Your task to perform on an android device: Open Reddit.com Image 0: 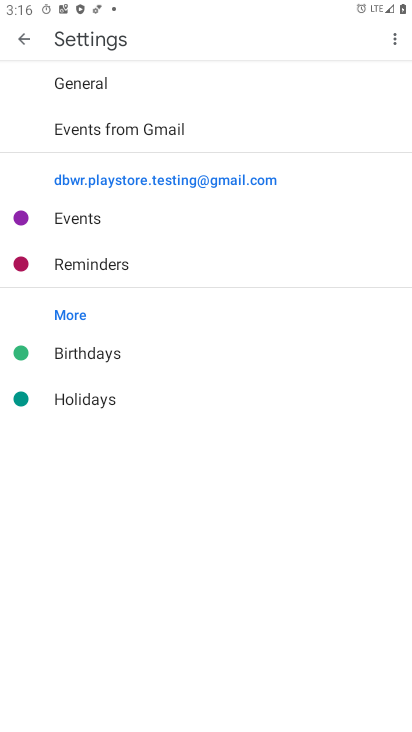
Step 0: press home button
Your task to perform on an android device: Open Reddit.com Image 1: 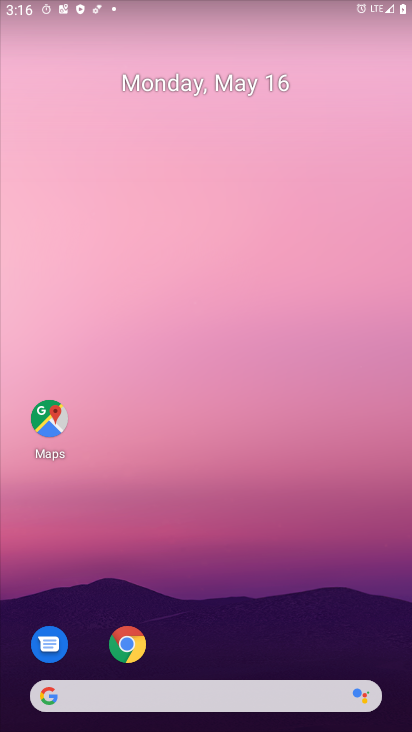
Step 1: drag from (272, 654) to (276, 167)
Your task to perform on an android device: Open Reddit.com Image 2: 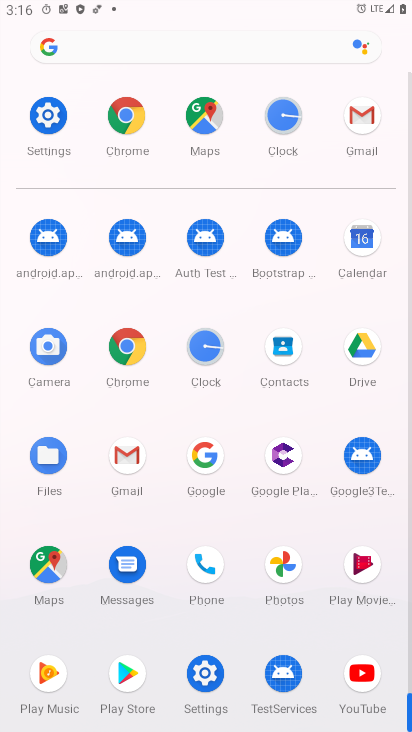
Step 2: click (136, 134)
Your task to perform on an android device: Open Reddit.com Image 3: 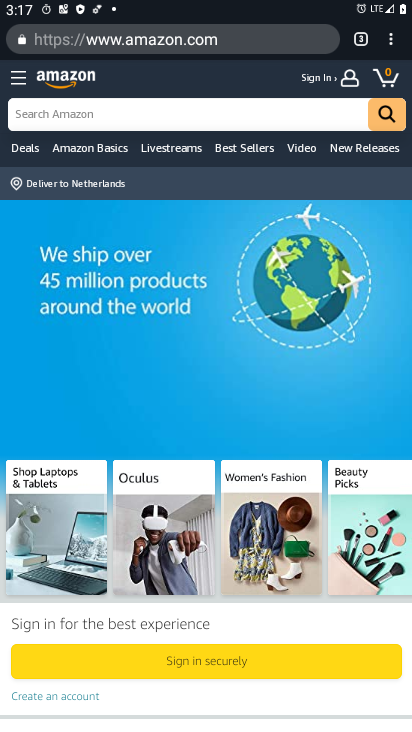
Step 3: click (205, 34)
Your task to perform on an android device: Open Reddit.com Image 4: 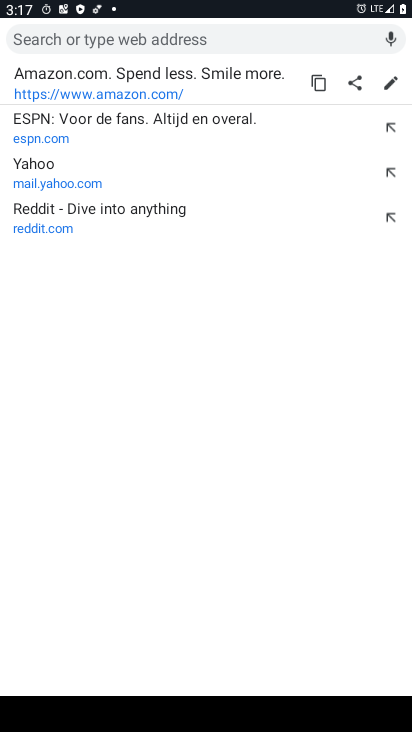
Step 4: click (216, 228)
Your task to perform on an android device: Open Reddit.com Image 5: 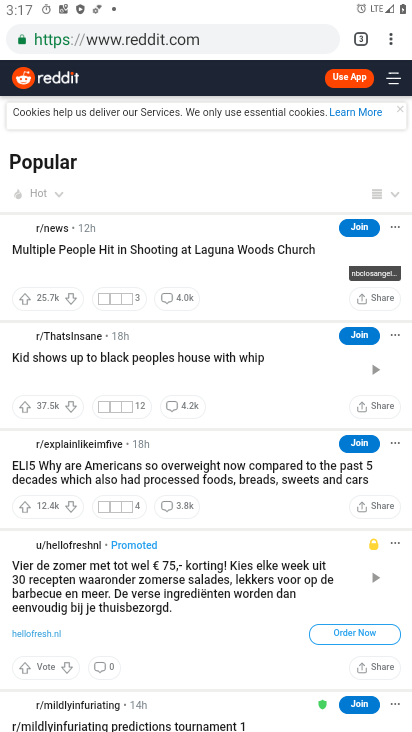
Step 5: task complete